Your task to perform on an android device: Open the Play Movies app and select the watchlist tab. Image 0: 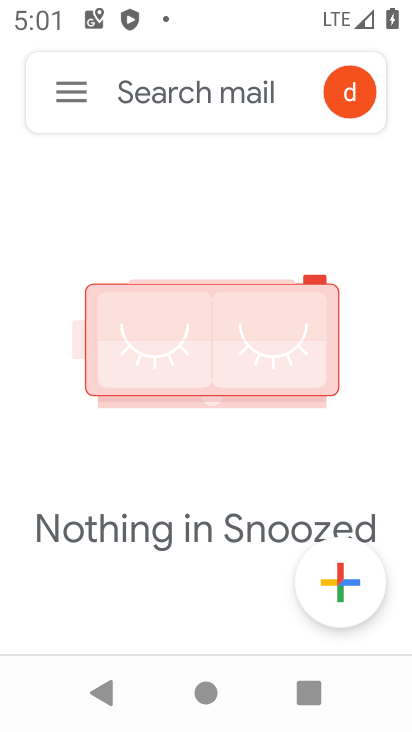
Step 0: press home button
Your task to perform on an android device: Open the Play Movies app and select the watchlist tab. Image 1: 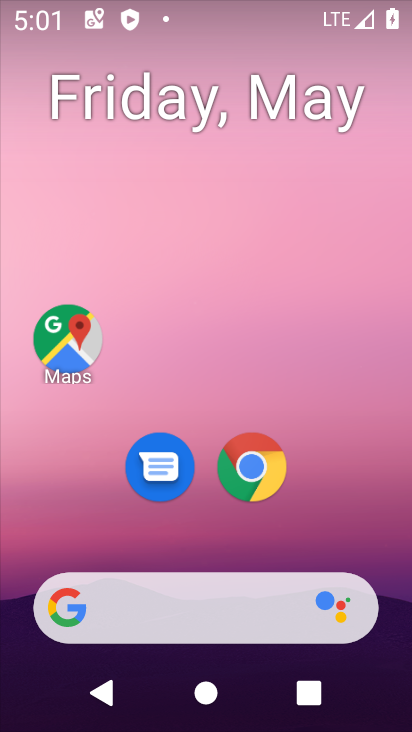
Step 1: drag from (311, 509) to (297, 0)
Your task to perform on an android device: Open the Play Movies app and select the watchlist tab. Image 2: 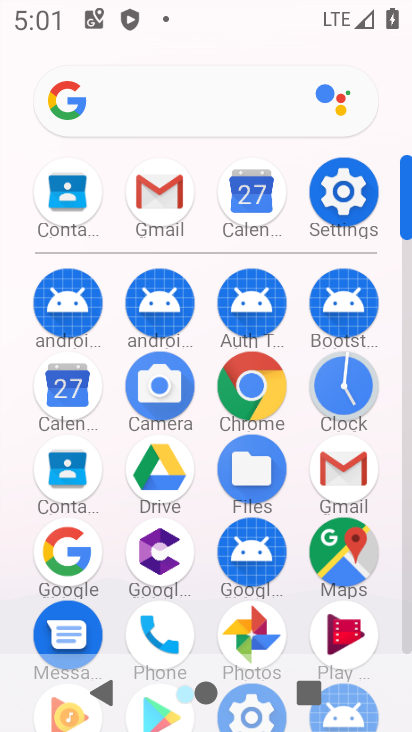
Step 2: click (332, 655)
Your task to perform on an android device: Open the Play Movies app and select the watchlist tab. Image 3: 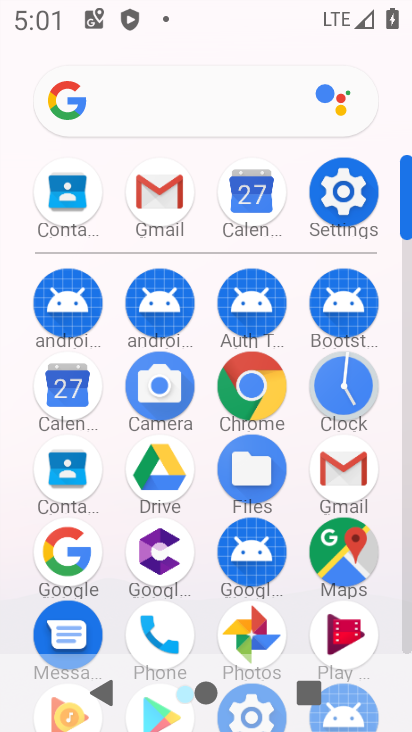
Step 3: click (332, 654)
Your task to perform on an android device: Open the Play Movies app and select the watchlist tab. Image 4: 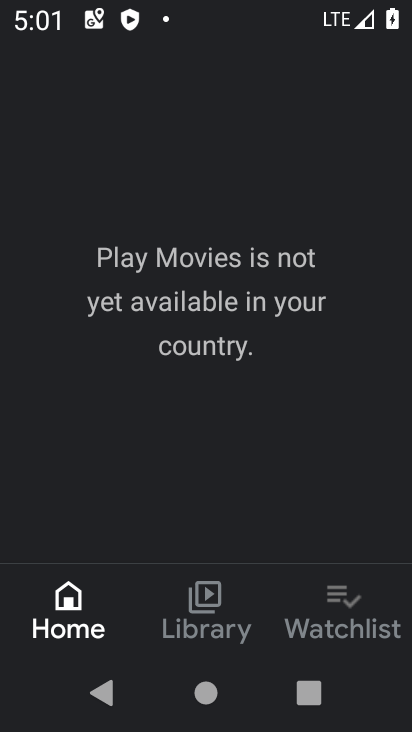
Step 4: click (344, 605)
Your task to perform on an android device: Open the Play Movies app and select the watchlist tab. Image 5: 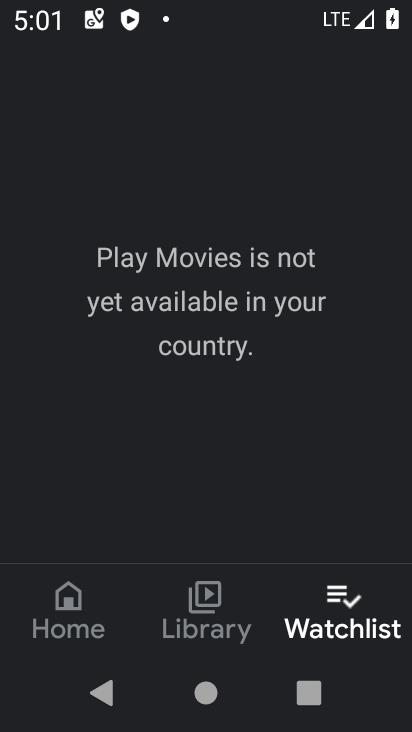
Step 5: task complete